Your task to perform on an android device: What's on my calendar tomorrow? Image 0: 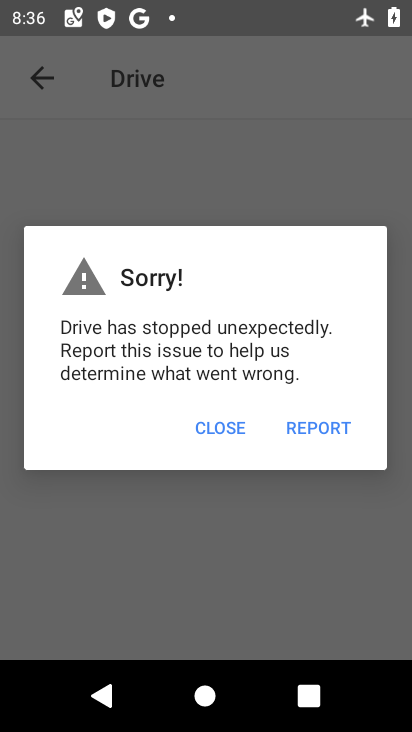
Step 0: press home button
Your task to perform on an android device: What's on my calendar tomorrow? Image 1: 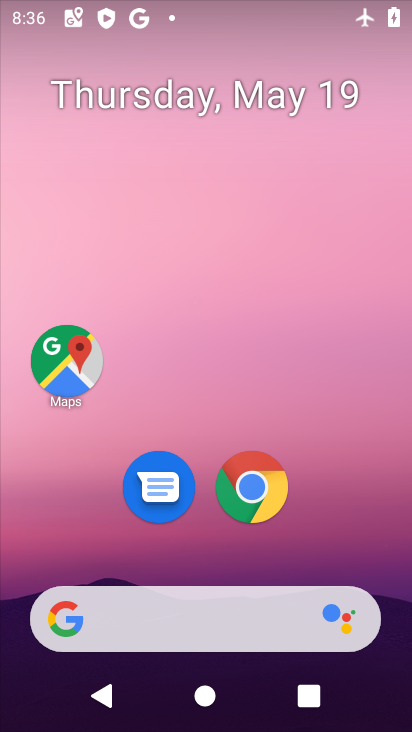
Step 1: drag from (224, 584) to (144, 101)
Your task to perform on an android device: What's on my calendar tomorrow? Image 2: 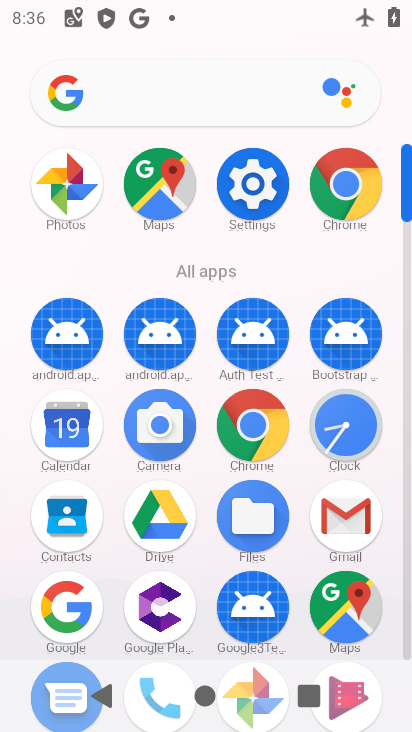
Step 2: click (71, 432)
Your task to perform on an android device: What's on my calendar tomorrow? Image 3: 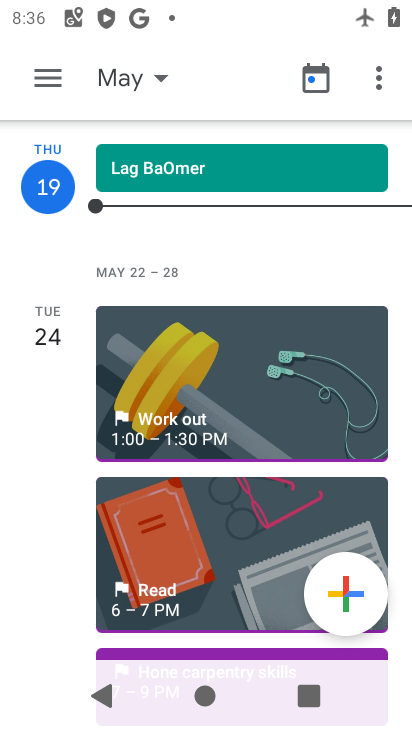
Step 3: click (58, 348)
Your task to perform on an android device: What's on my calendar tomorrow? Image 4: 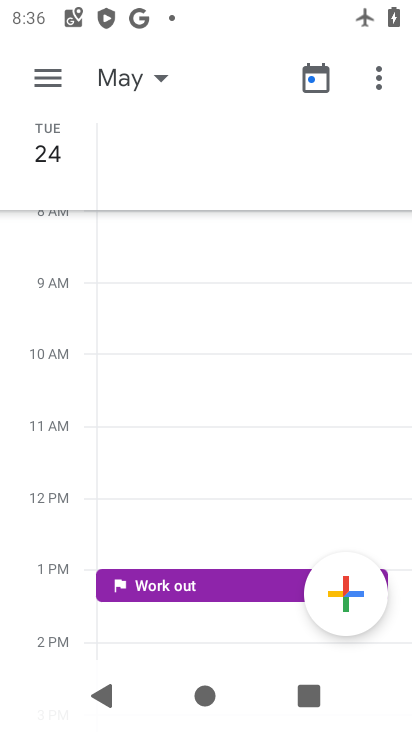
Step 4: click (299, 84)
Your task to perform on an android device: What's on my calendar tomorrow? Image 5: 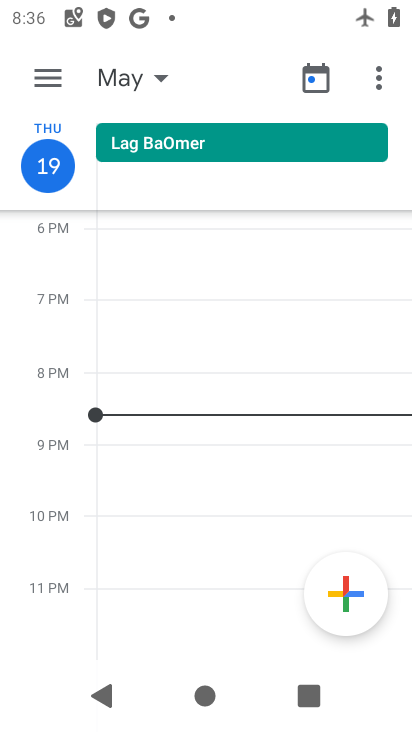
Step 5: click (43, 73)
Your task to perform on an android device: What's on my calendar tomorrow? Image 6: 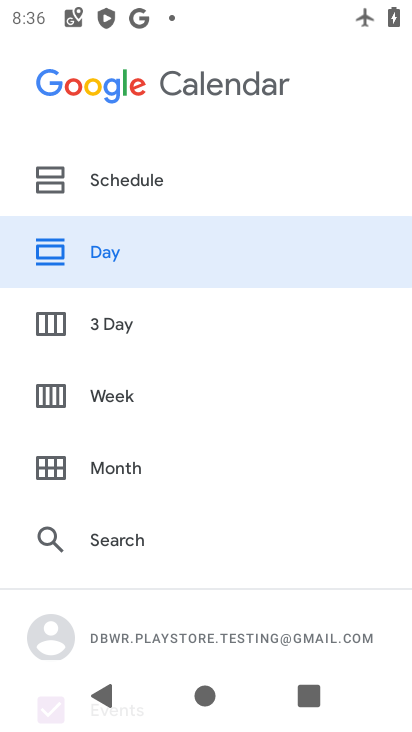
Step 6: click (127, 396)
Your task to perform on an android device: What's on my calendar tomorrow? Image 7: 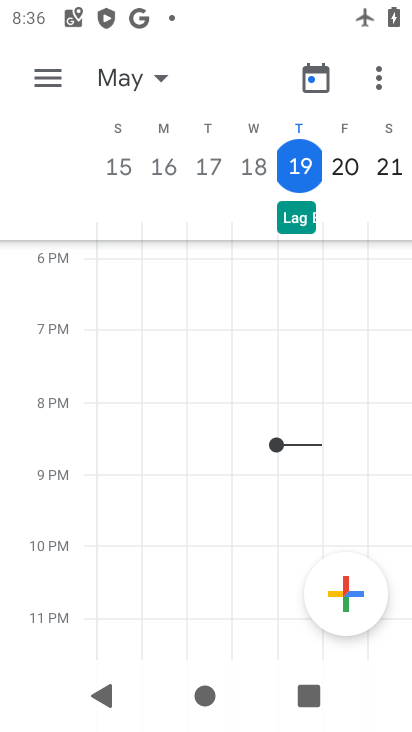
Step 7: click (345, 165)
Your task to perform on an android device: What's on my calendar tomorrow? Image 8: 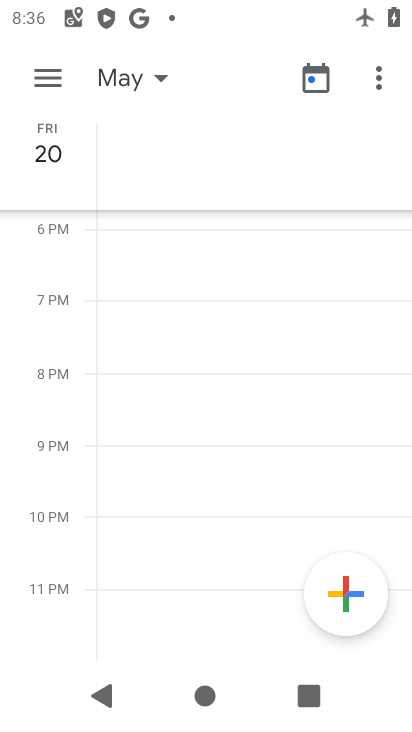
Step 8: task complete